Your task to perform on an android device: refresh tabs in the chrome app Image 0: 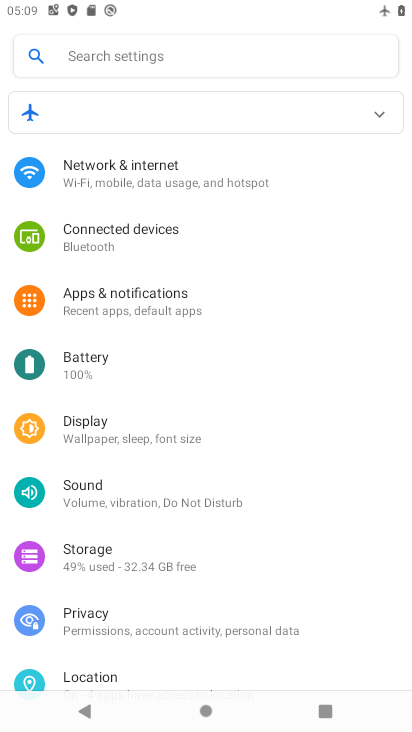
Step 0: press home button
Your task to perform on an android device: refresh tabs in the chrome app Image 1: 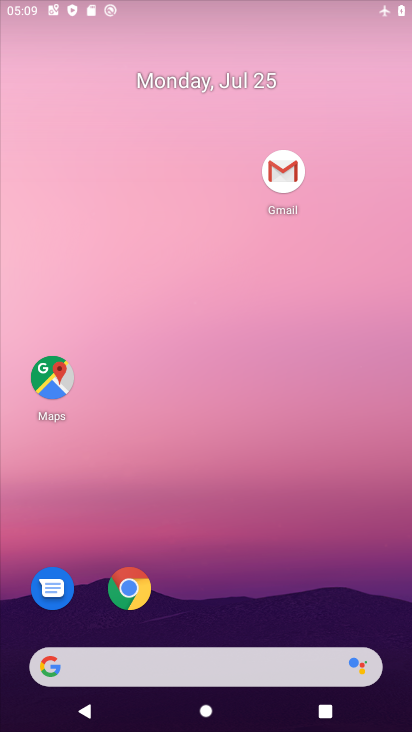
Step 1: drag from (284, 413) to (178, 7)
Your task to perform on an android device: refresh tabs in the chrome app Image 2: 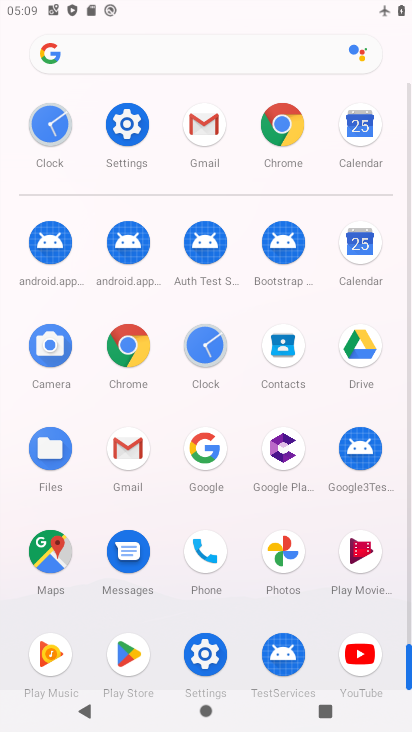
Step 2: click (286, 123)
Your task to perform on an android device: refresh tabs in the chrome app Image 3: 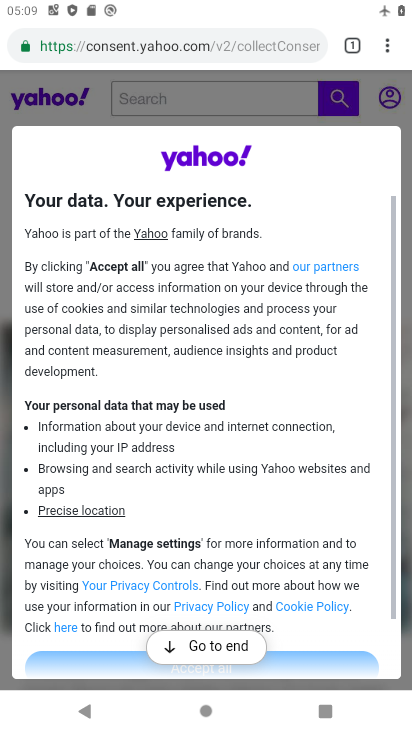
Step 3: click (387, 34)
Your task to perform on an android device: refresh tabs in the chrome app Image 4: 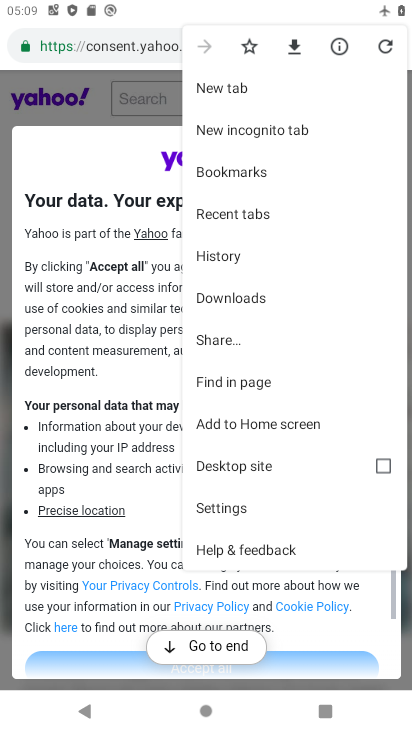
Step 4: click (385, 43)
Your task to perform on an android device: refresh tabs in the chrome app Image 5: 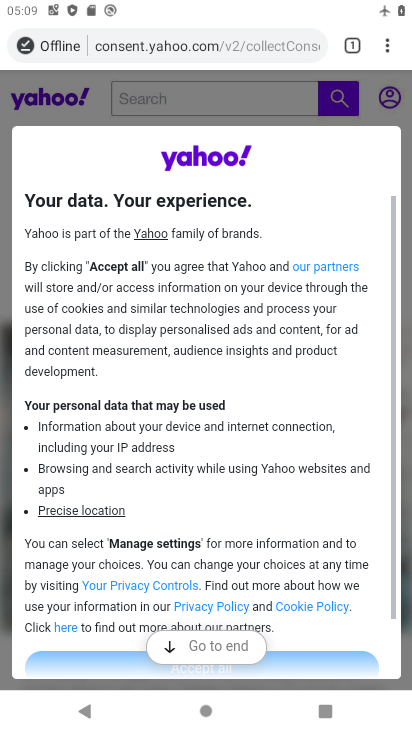
Step 5: task complete